Your task to perform on an android device: Open Youtube and go to "Your channel" Image 0: 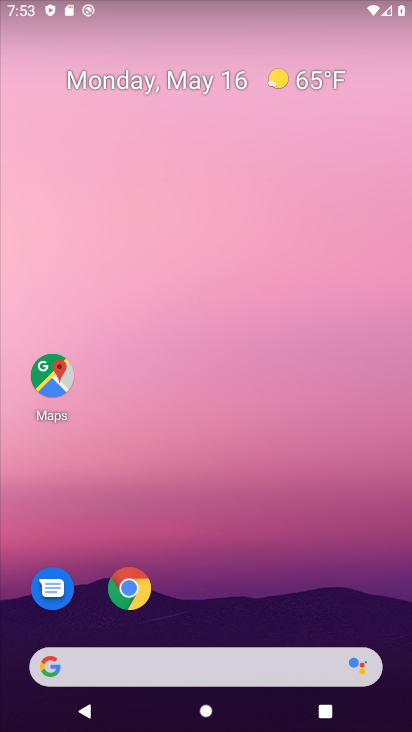
Step 0: drag from (345, 603) to (347, 78)
Your task to perform on an android device: Open Youtube and go to "Your channel" Image 1: 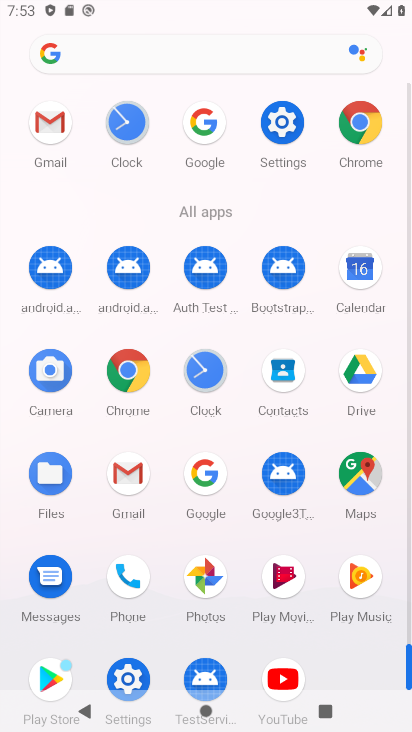
Step 1: drag from (323, 513) to (324, 338)
Your task to perform on an android device: Open Youtube and go to "Your channel" Image 2: 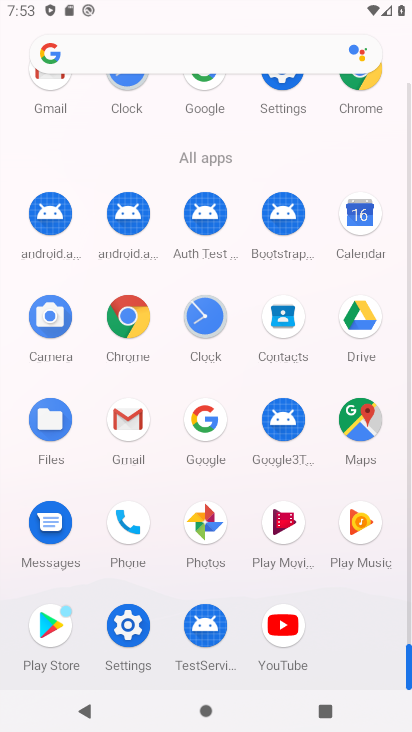
Step 2: click (283, 631)
Your task to perform on an android device: Open Youtube and go to "Your channel" Image 3: 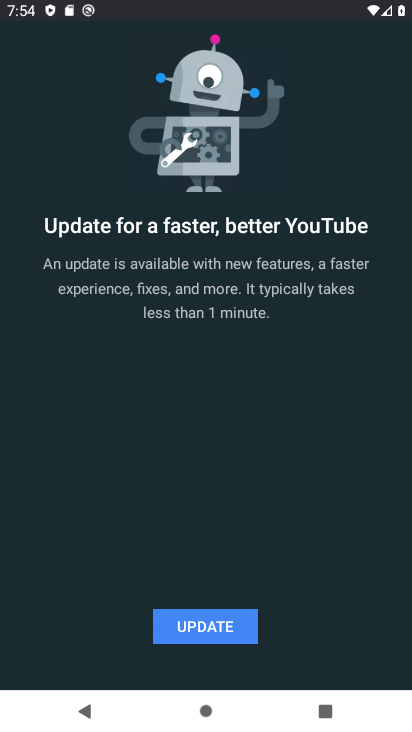
Step 3: click (232, 628)
Your task to perform on an android device: Open Youtube and go to "Your channel" Image 4: 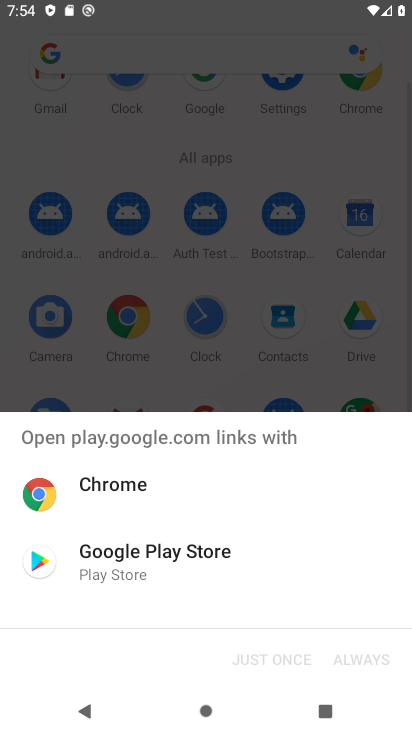
Step 4: click (162, 583)
Your task to perform on an android device: Open Youtube and go to "Your channel" Image 5: 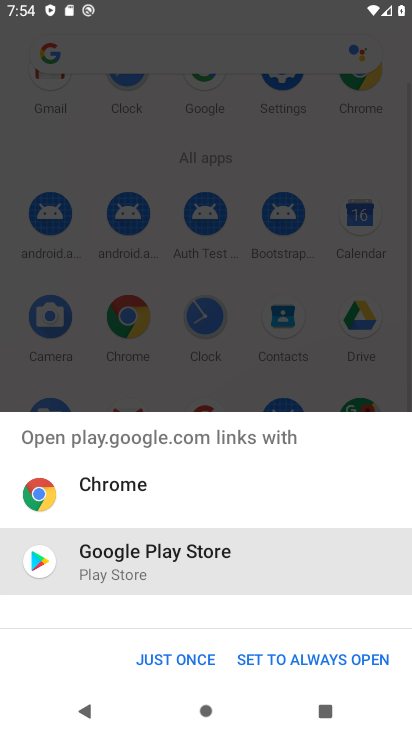
Step 5: click (196, 658)
Your task to perform on an android device: Open Youtube and go to "Your channel" Image 6: 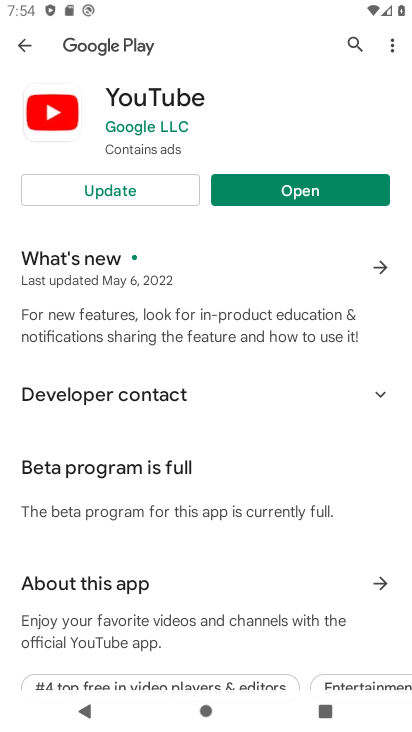
Step 6: click (131, 175)
Your task to perform on an android device: Open Youtube and go to "Your channel" Image 7: 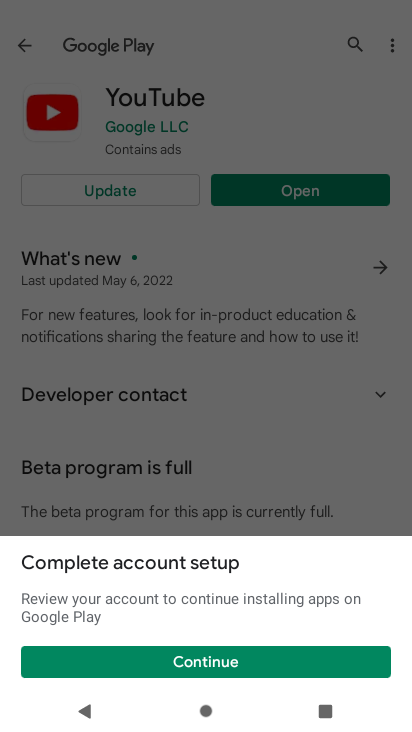
Step 7: click (267, 666)
Your task to perform on an android device: Open Youtube and go to "Your channel" Image 8: 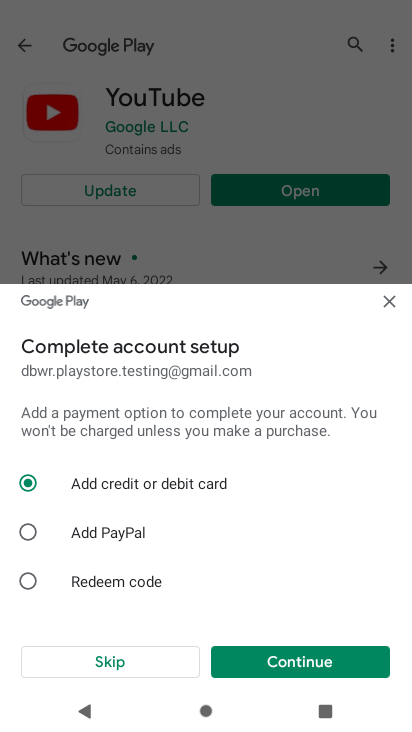
Step 8: click (391, 300)
Your task to perform on an android device: Open Youtube and go to "Your channel" Image 9: 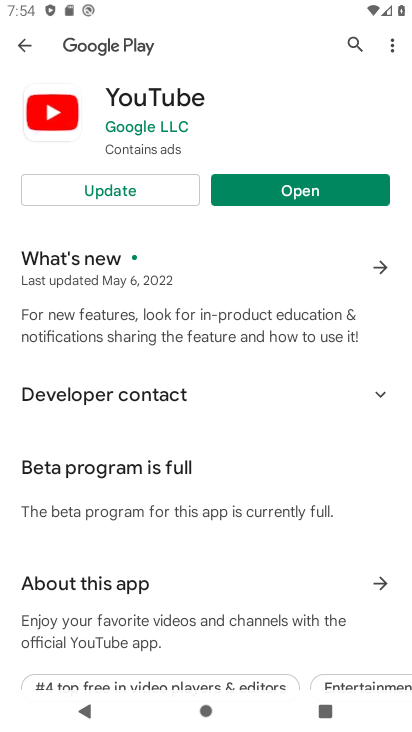
Step 9: click (83, 194)
Your task to perform on an android device: Open Youtube and go to "Your channel" Image 10: 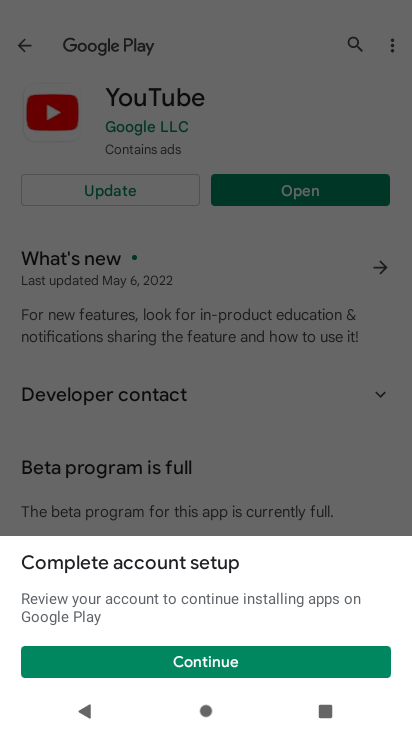
Step 10: click (192, 653)
Your task to perform on an android device: Open Youtube and go to "Your channel" Image 11: 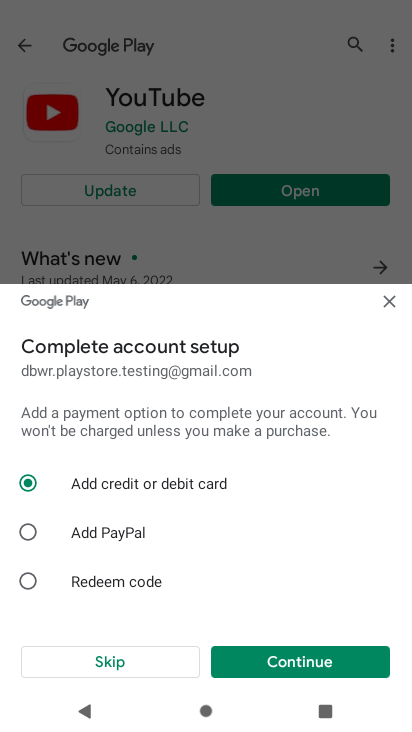
Step 11: click (153, 655)
Your task to perform on an android device: Open Youtube and go to "Your channel" Image 12: 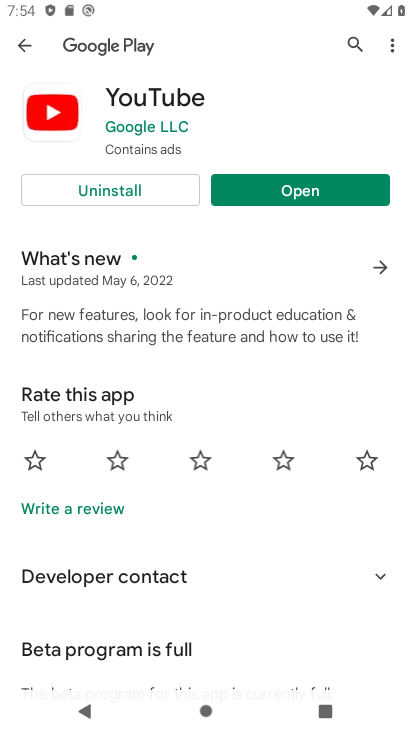
Step 12: click (272, 190)
Your task to perform on an android device: Open Youtube and go to "Your channel" Image 13: 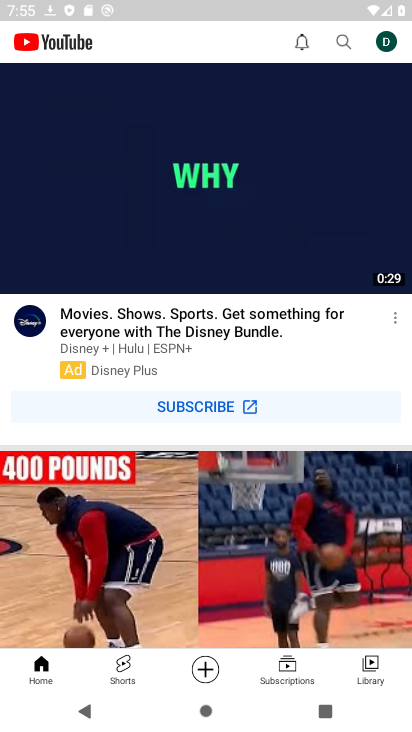
Step 13: click (386, 38)
Your task to perform on an android device: Open Youtube and go to "Your channel" Image 14: 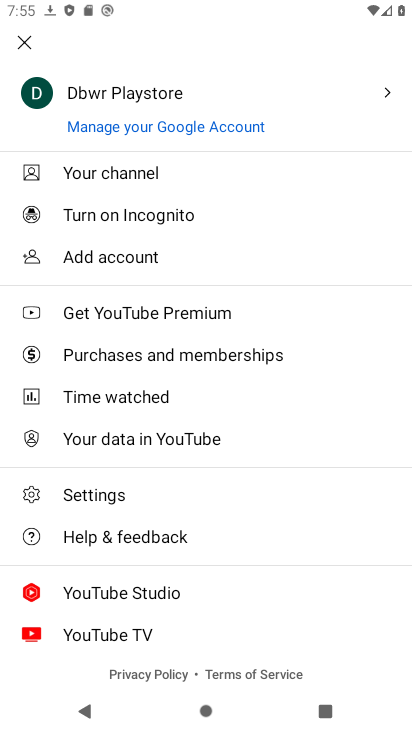
Step 14: click (134, 177)
Your task to perform on an android device: Open Youtube and go to "Your channel" Image 15: 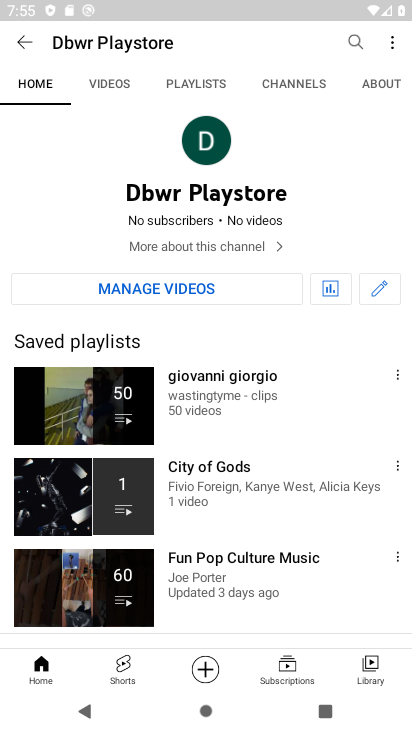
Step 15: task complete